Your task to perform on an android device: allow cookies in the chrome app Image 0: 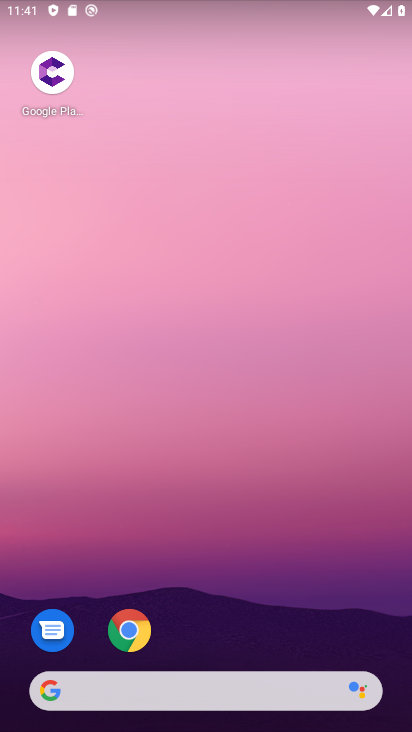
Step 0: click (125, 630)
Your task to perform on an android device: allow cookies in the chrome app Image 1: 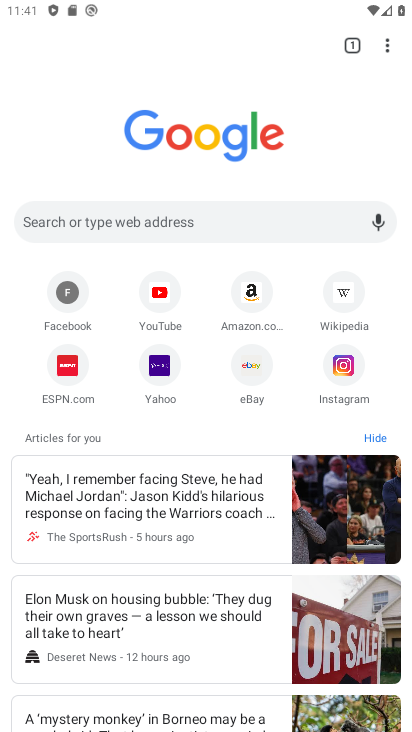
Step 1: click (388, 48)
Your task to perform on an android device: allow cookies in the chrome app Image 2: 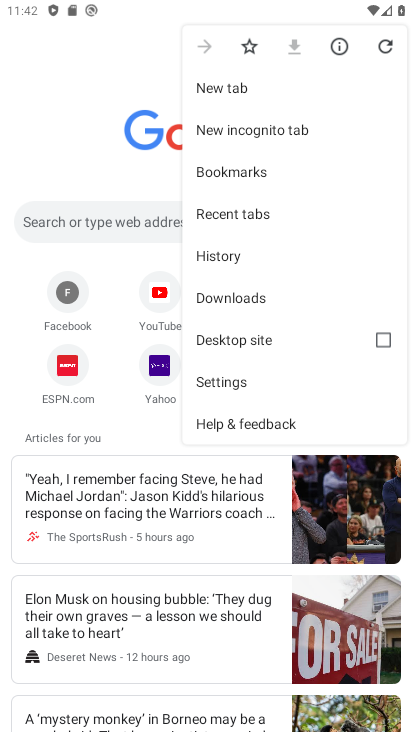
Step 2: click (211, 380)
Your task to perform on an android device: allow cookies in the chrome app Image 3: 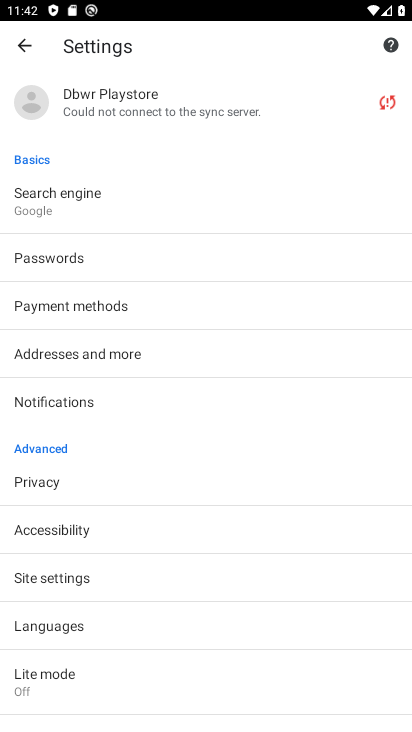
Step 3: click (53, 577)
Your task to perform on an android device: allow cookies in the chrome app Image 4: 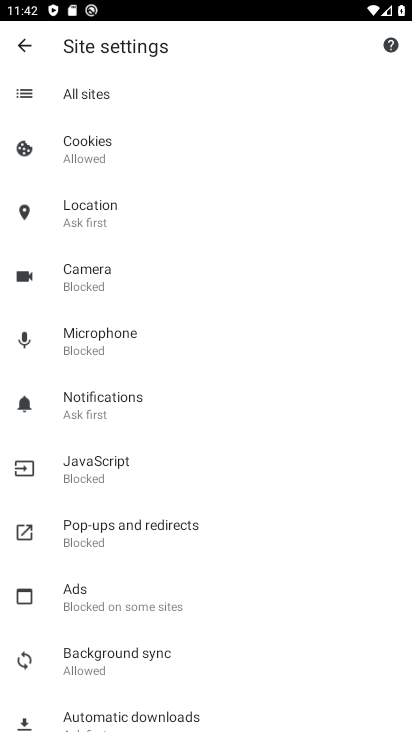
Step 4: click (84, 154)
Your task to perform on an android device: allow cookies in the chrome app Image 5: 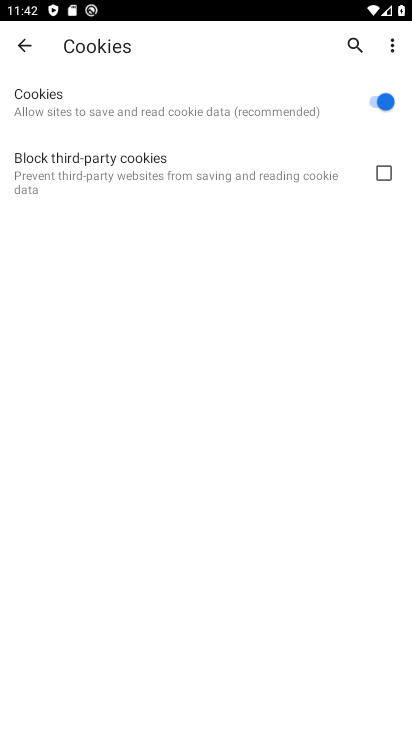
Step 5: task complete